Your task to perform on an android device: Open my contact list Image 0: 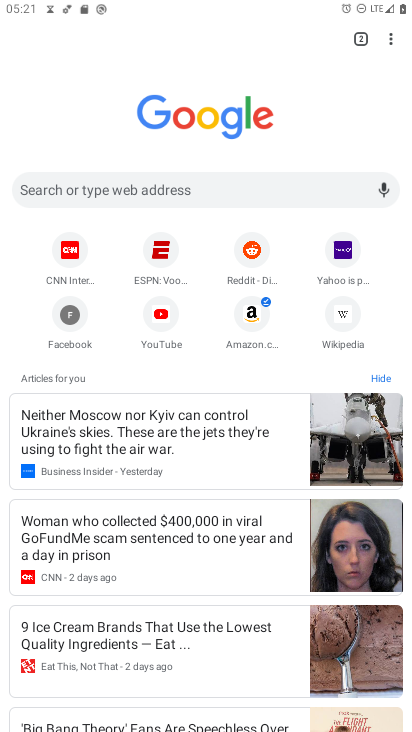
Step 0: press home button
Your task to perform on an android device: Open my contact list Image 1: 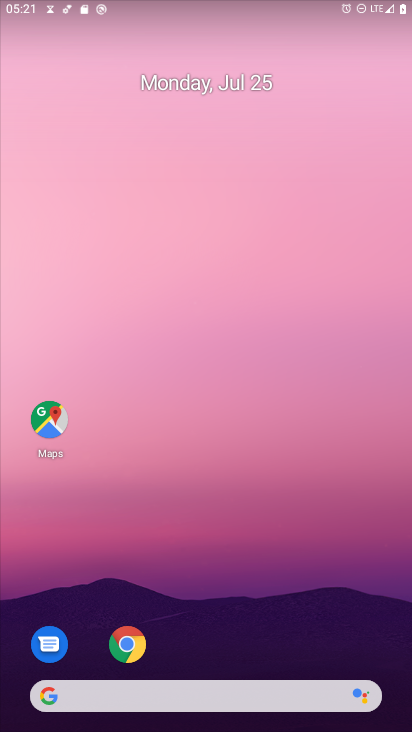
Step 1: drag from (284, 650) to (323, 79)
Your task to perform on an android device: Open my contact list Image 2: 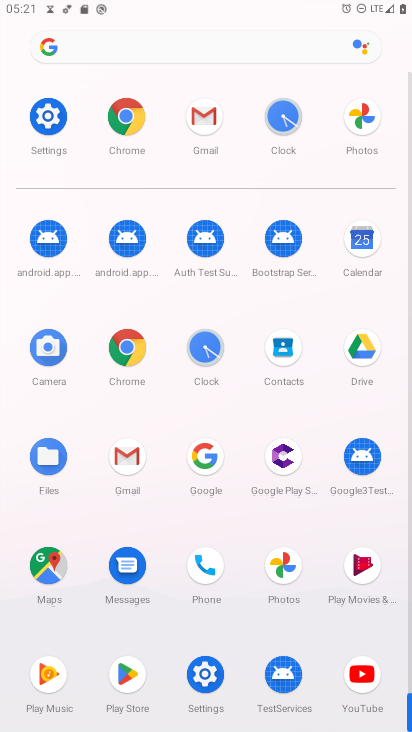
Step 2: click (275, 350)
Your task to perform on an android device: Open my contact list Image 3: 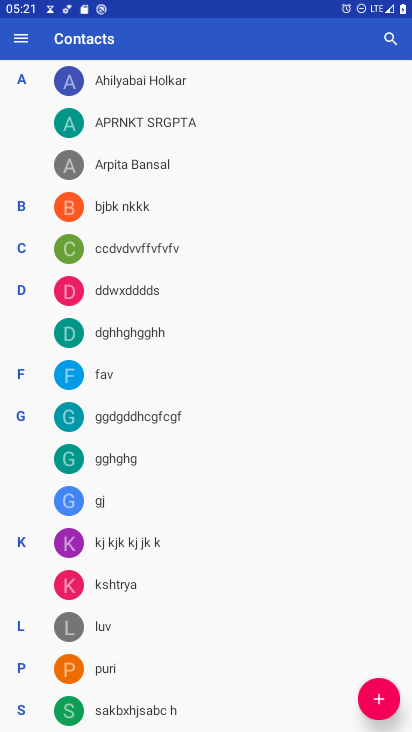
Step 3: task complete